Your task to perform on an android device: install app "Expedia: Hotels, Flights & Car" Image 0: 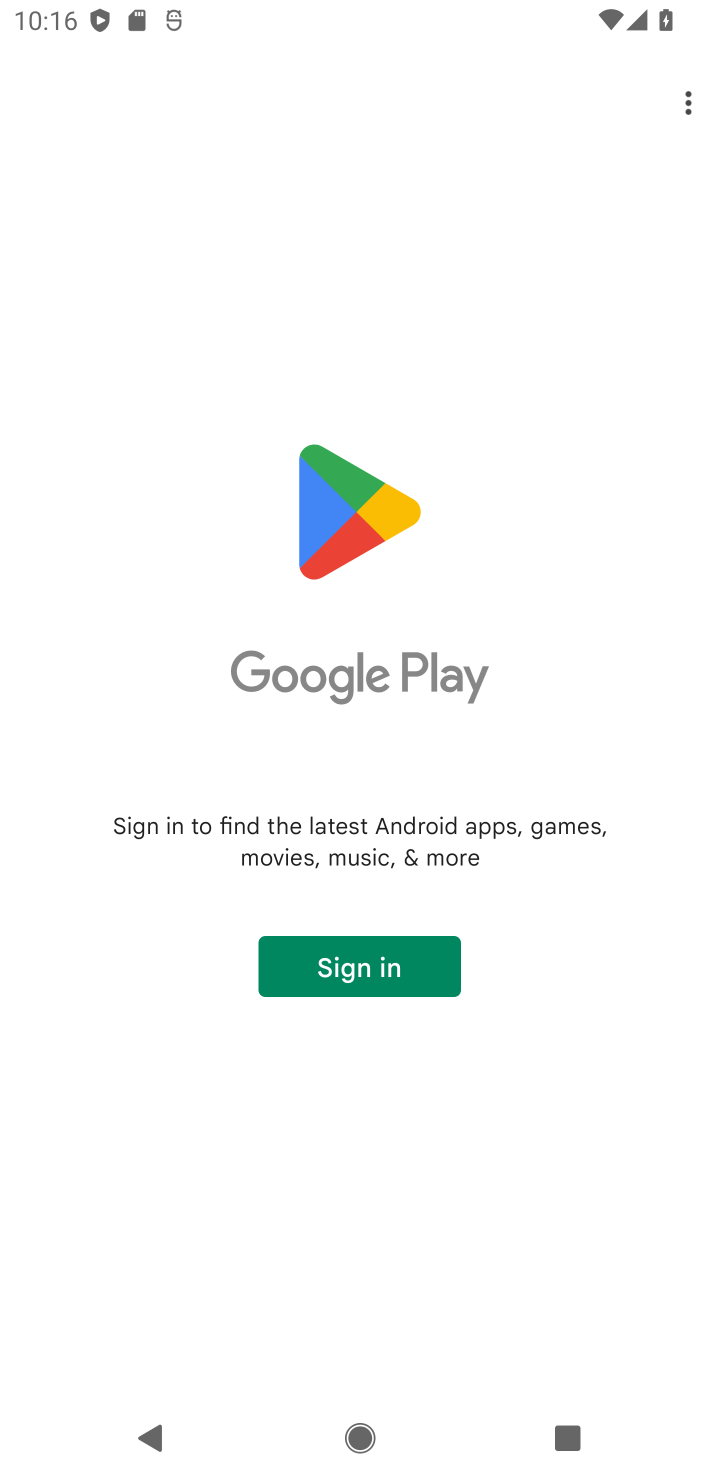
Step 0: press home button
Your task to perform on an android device: install app "Expedia: Hotels, Flights & Car" Image 1: 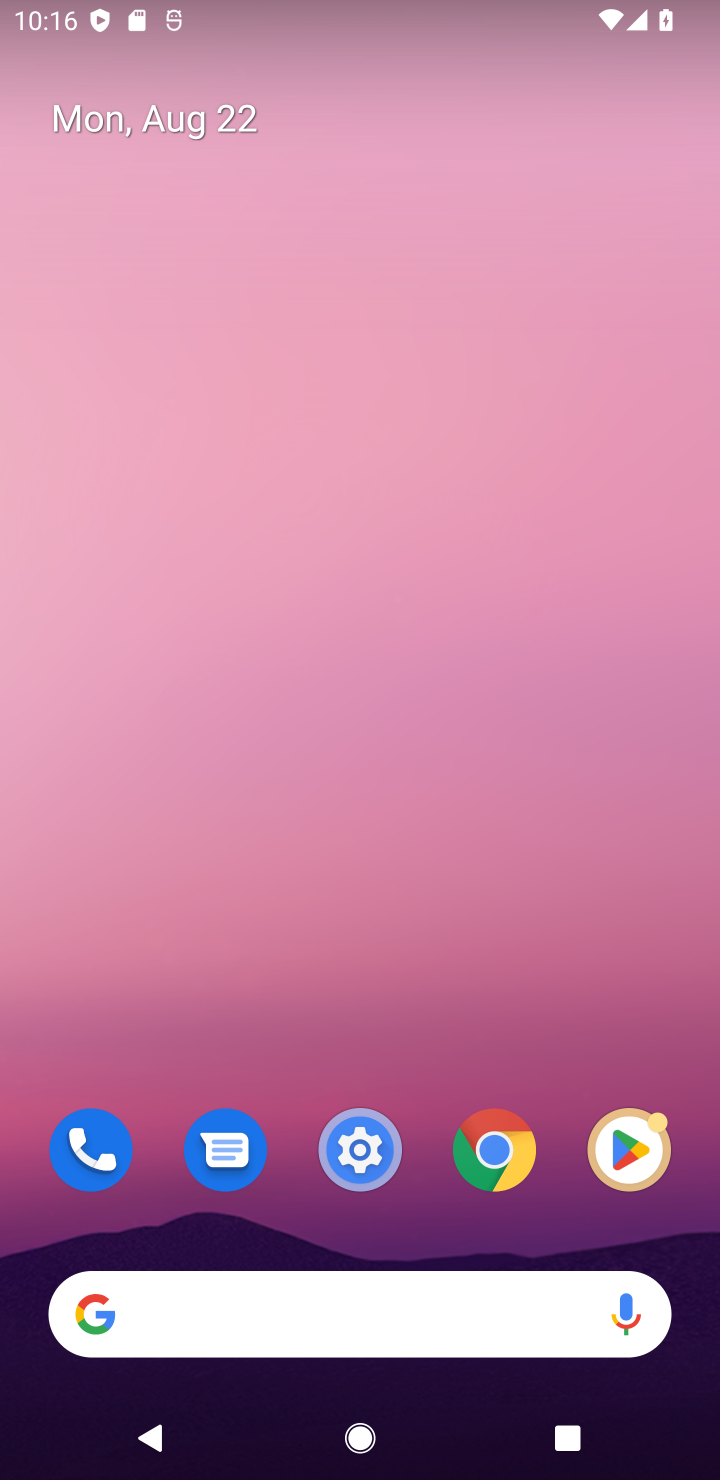
Step 1: drag from (430, 1214) to (512, 241)
Your task to perform on an android device: install app "Expedia: Hotels, Flights & Car" Image 2: 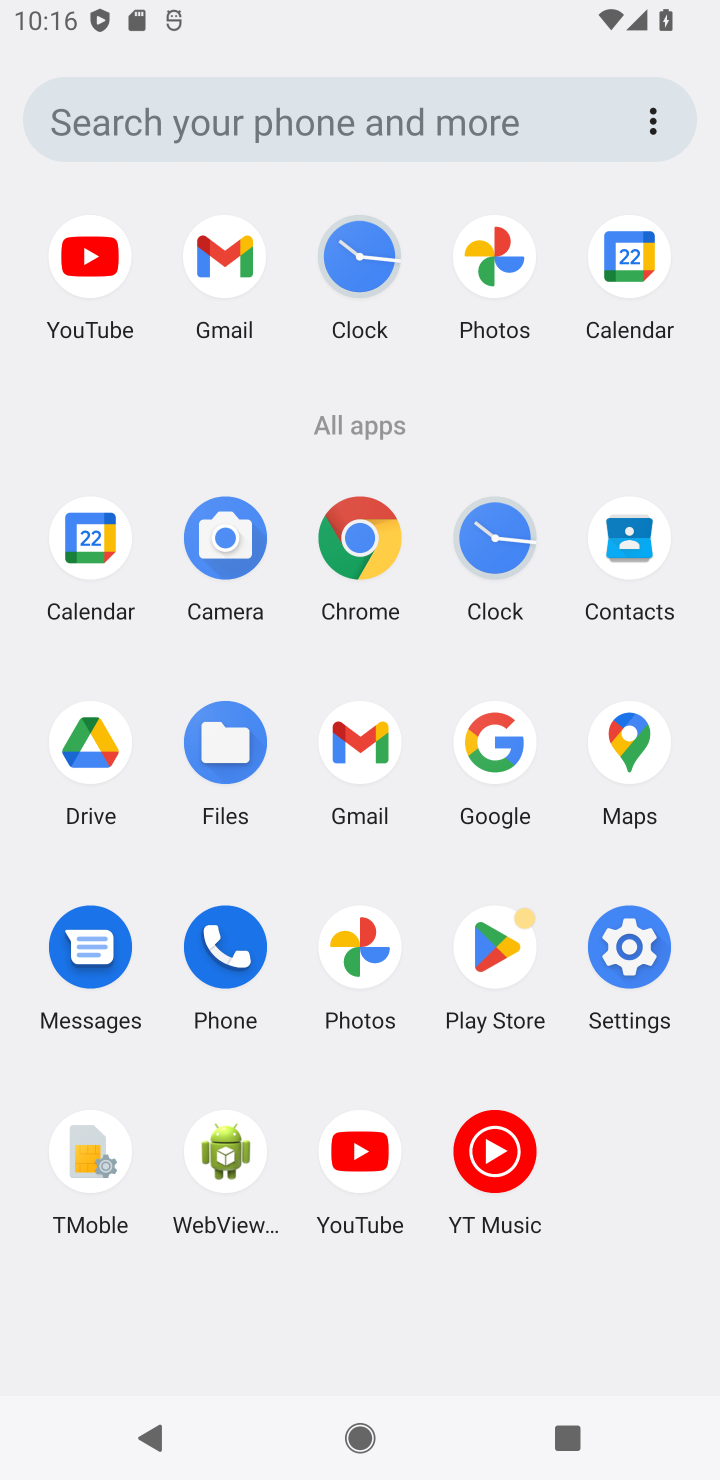
Step 2: click (494, 952)
Your task to perform on an android device: install app "Expedia: Hotels, Flights & Car" Image 3: 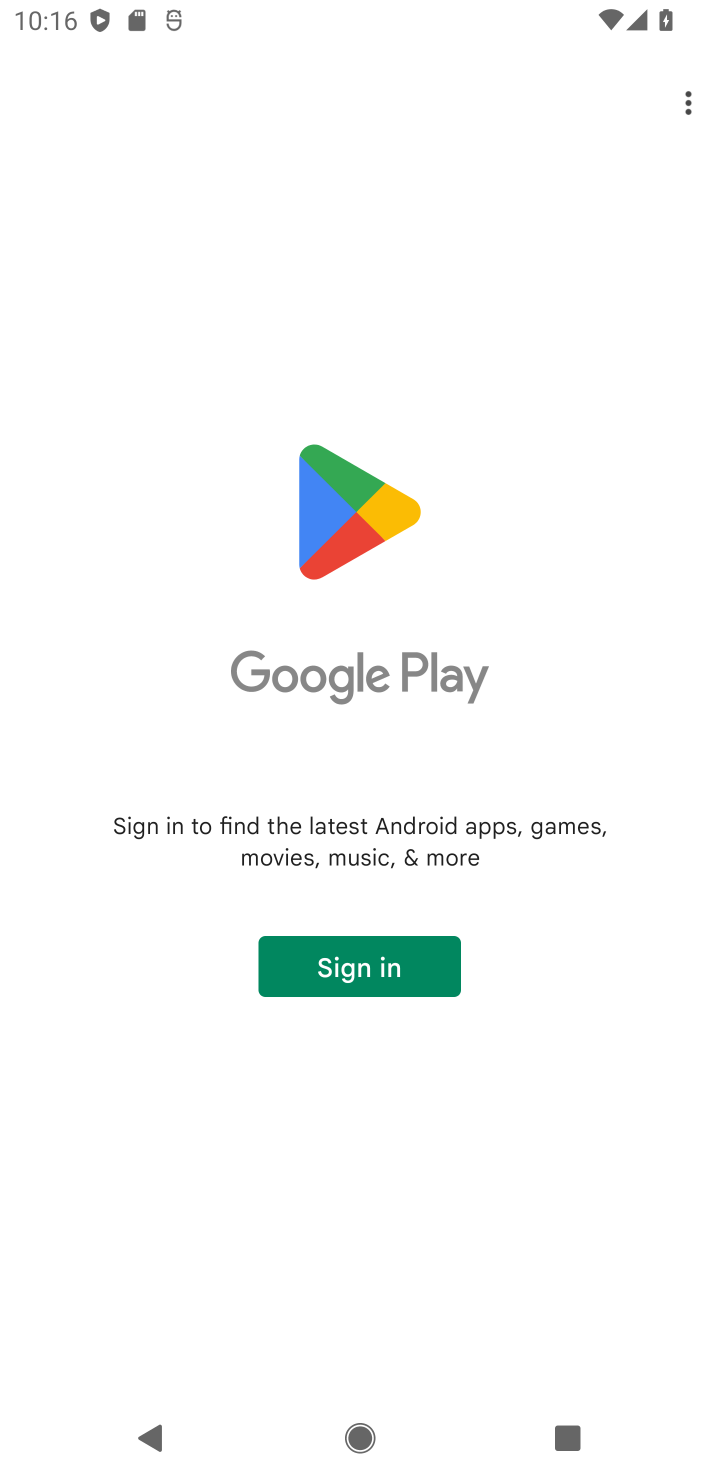
Step 3: click (381, 963)
Your task to perform on an android device: install app "Expedia: Hotels, Flights & Car" Image 4: 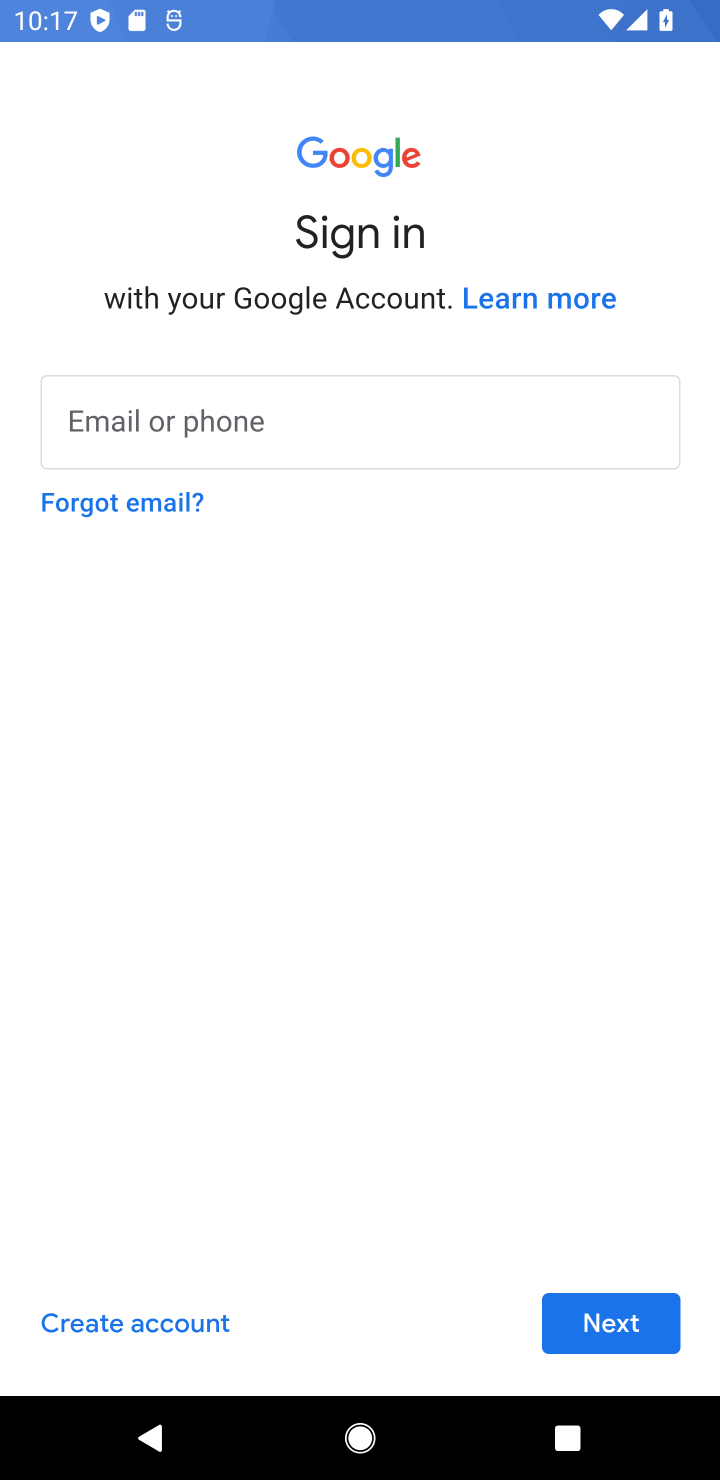
Step 4: press home button
Your task to perform on an android device: install app "Expedia: Hotels, Flights & Car" Image 5: 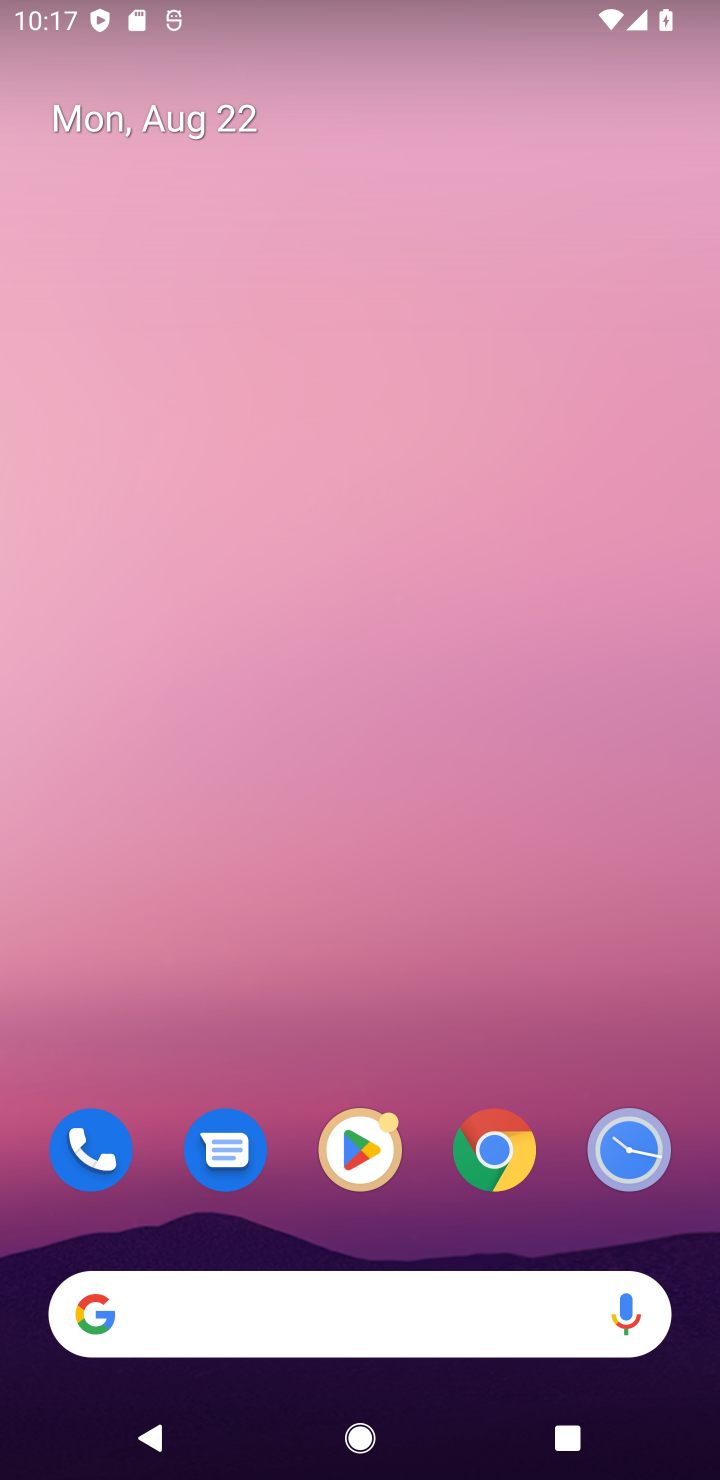
Step 5: click (358, 1148)
Your task to perform on an android device: install app "Expedia: Hotels, Flights & Car" Image 6: 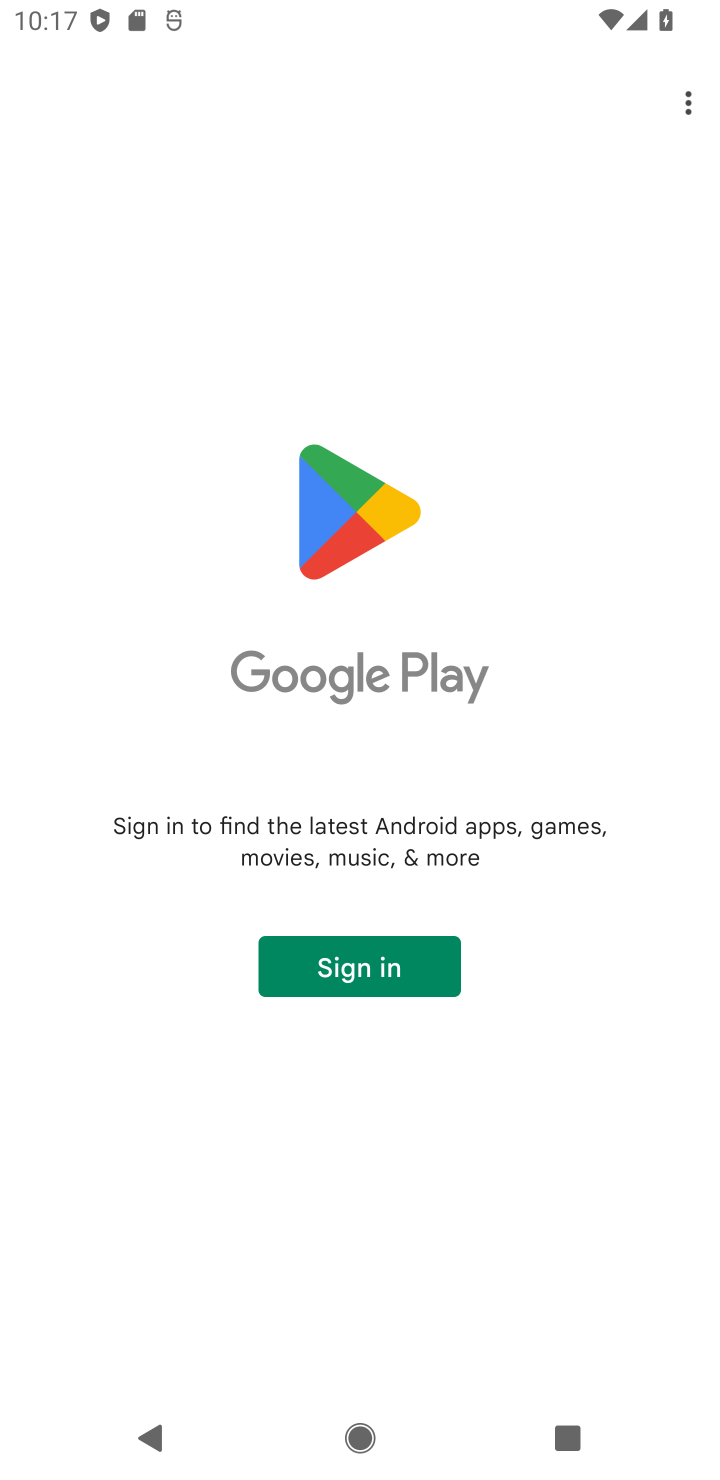
Step 6: task complete